Your task to perform on an android device: refresh tabs in the chrome app Image 0: 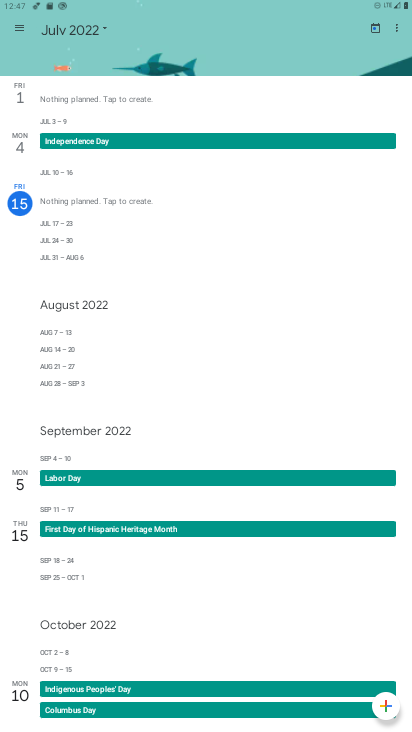
Step 0: press home button
Your task to perform on an android device: refresh tabs in the chrome app Image 1: 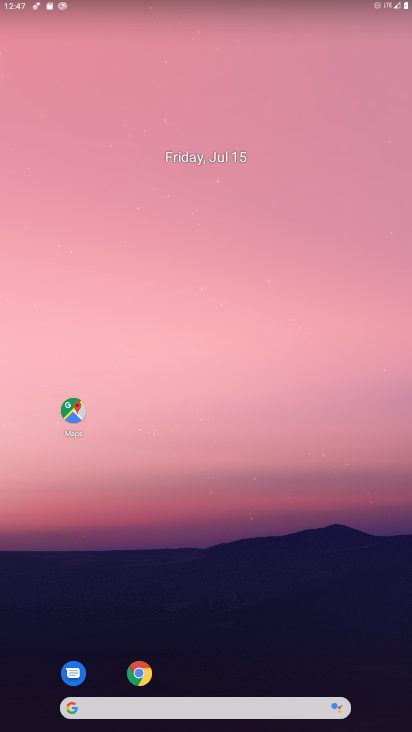
Step 1: click (130, 670)
Your task to perform on an android device: refresh tabs in the chrome app Image 2: 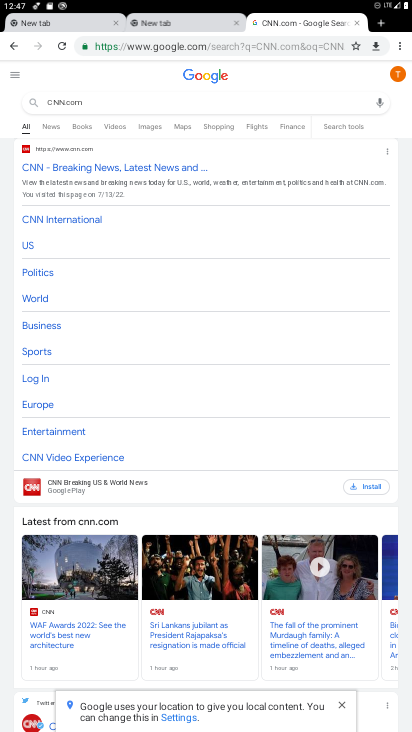
Step 2: click (400, 45)
Your task to perform on an android device: refresh tabs in the chrome app Image 3: 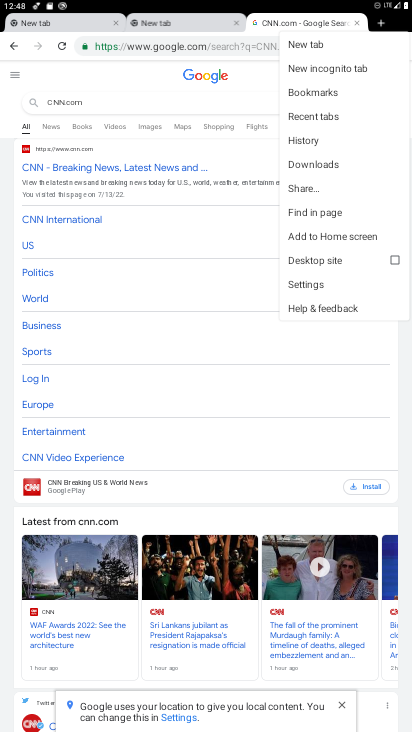
Step 3: task complete